Your task to perform on an android device: Go to Yahoo.com Image 0: 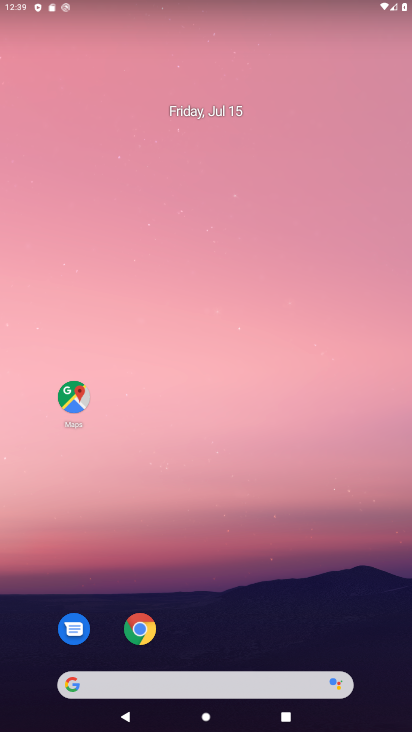
Step 0: drag from (252, 487) to (303, 101)
Your task to perform on an android device: Go to Yahoo.com Image 1: 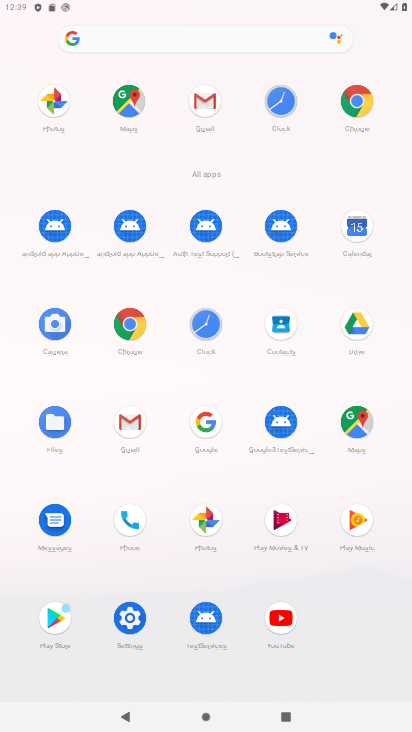
Step 1: click (135, 330)
Your task to perform on an android device: Go to Yahoo.com Image 2: 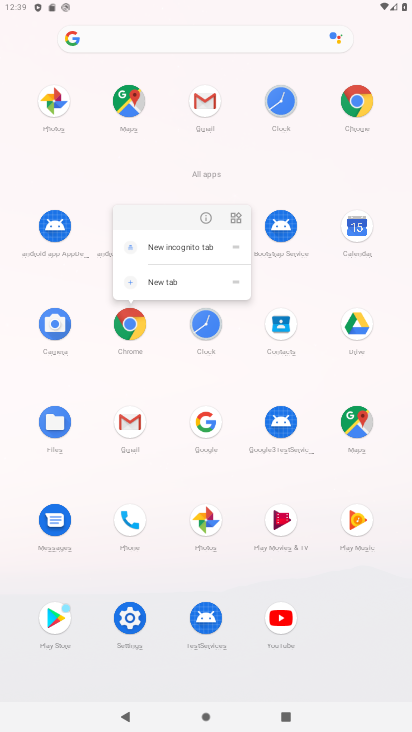
Step 2: click (135, 329)
Your task to perform on an android device: Go to Yahoo.com Image 3: 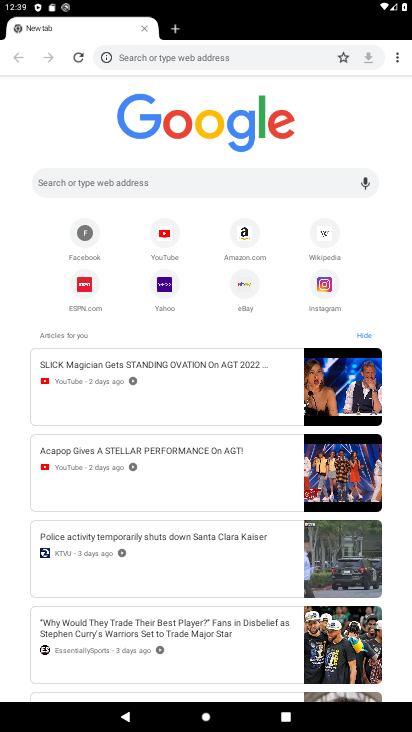
Step 3: click (158, 287)
Your task to perform on an android device: Go to Yahoo.com Image 4: 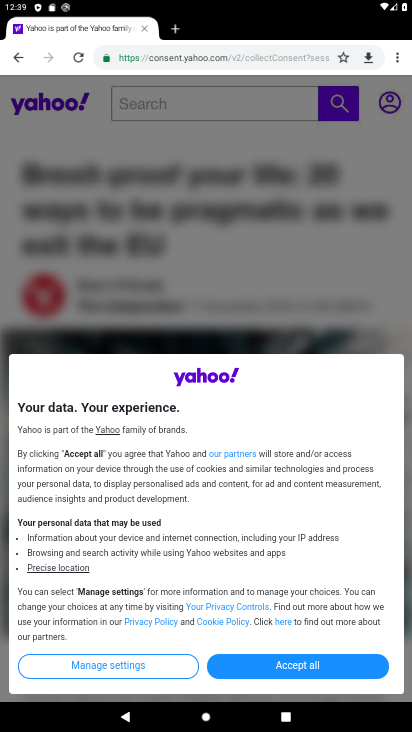
Step 4: click (310, 666)
Your task to perform on an android device: Go to Yahoo.com Image 5: 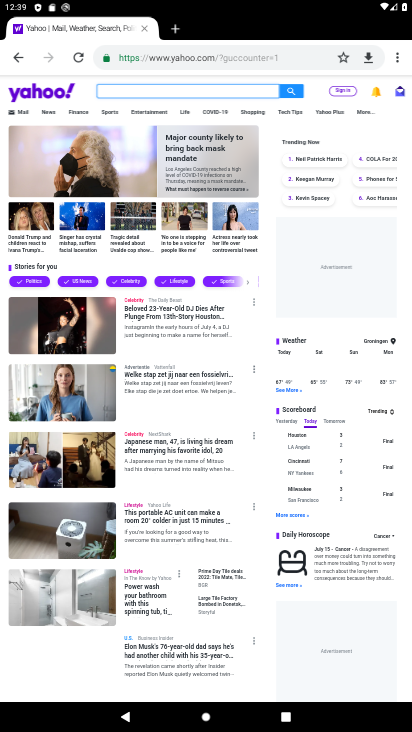
Step 5: task complete